Your task to perform on an android device: show emergency info Image 0: 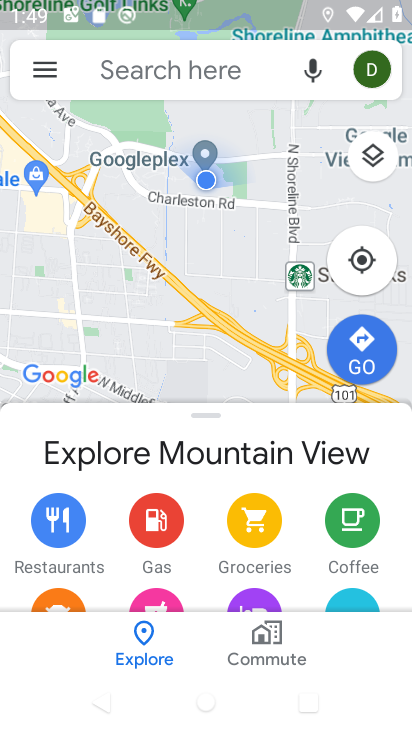
Step 0: press home button
Your task to perform on an android device: show emergency info Image 1: 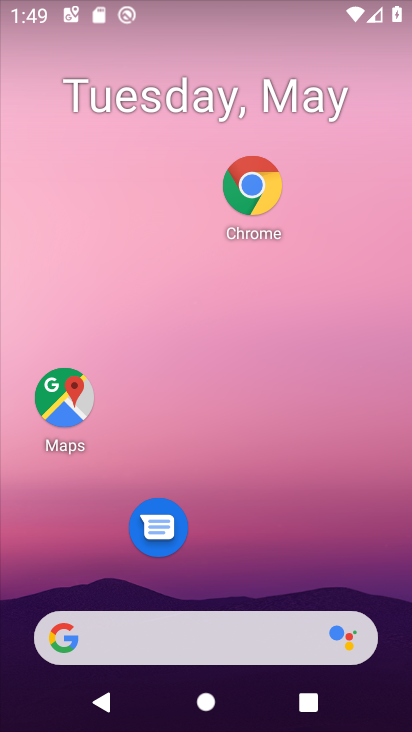
Step 1: drag from (238, 508) to (133, 5)
Your task to perform on an android device: show emergency info Image 2: 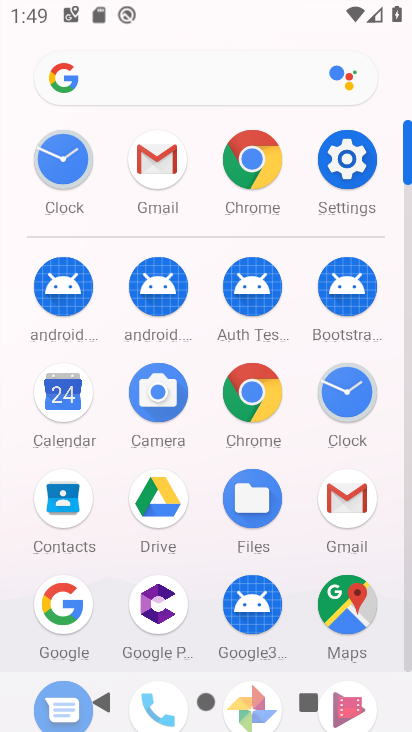
Step 2: click (350, 162)
Your task to perform on an android device: show emergency info Image 3: 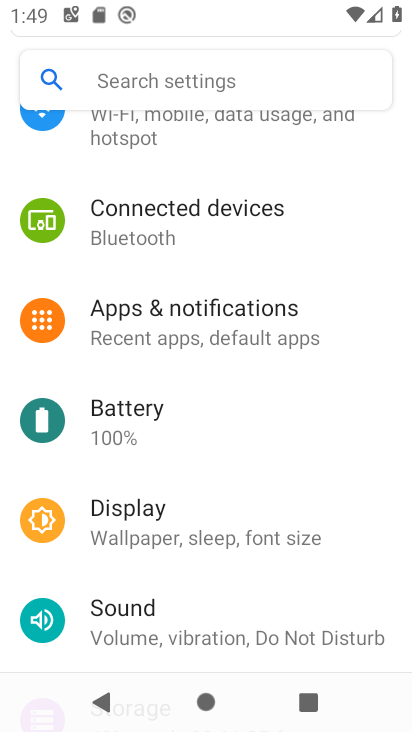
Step 3: drag from (238, 420) to (208, 103)
Your task to perform on an android device: show emergency info Image 4: 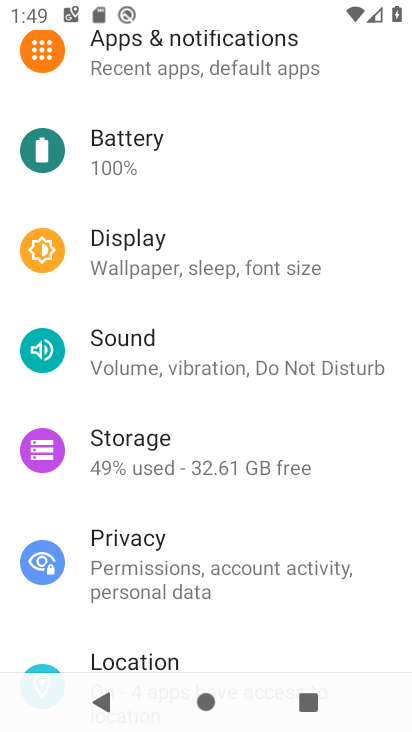
Step 4: drag from (245, 521) to (208, 188)
Your task to perform on an android device: show emergency info Image 5: 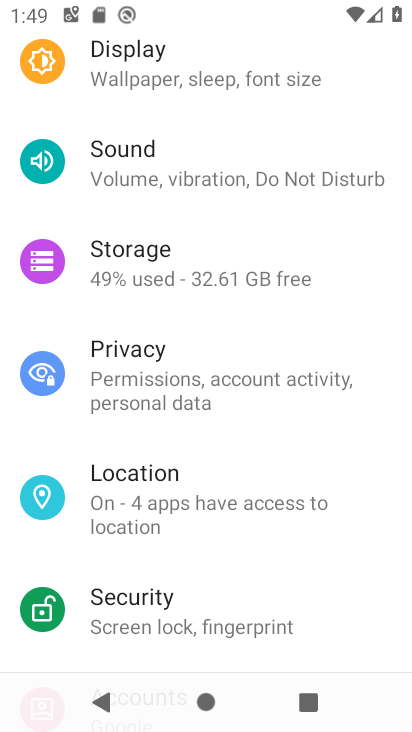
Step 5: drag from (230, 535) to (188, 182)
Your task to perform on an android device: show emergency info Image 6: 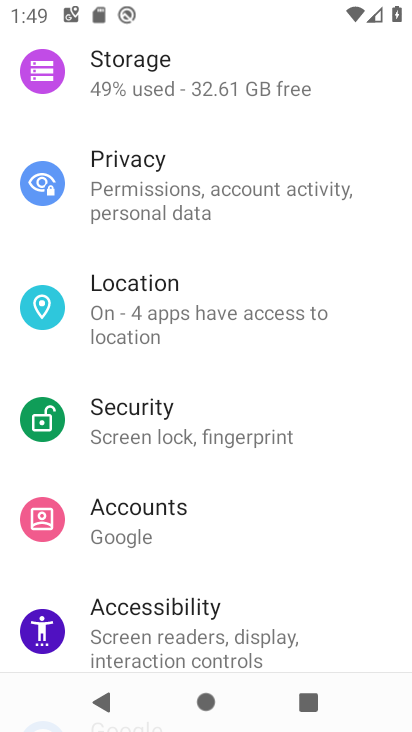
Step 6: drag from (225, 533) to (211, 292)
Your task to perform on an android device: show emergency info Image 7: 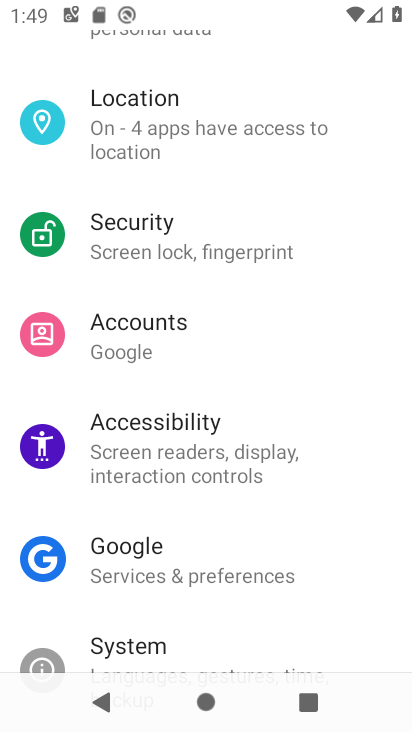
Step 7: drag from (219, 528) to (184, 205)
Your task to perform on an android device: show emergency info Image 8: 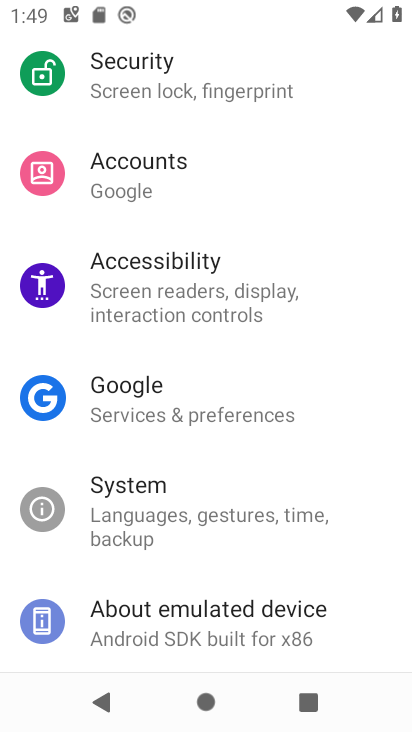
Step 8: drag from (192, 536) to (158, 229)
Your task to perform on an android device: show emergency info Image 9: 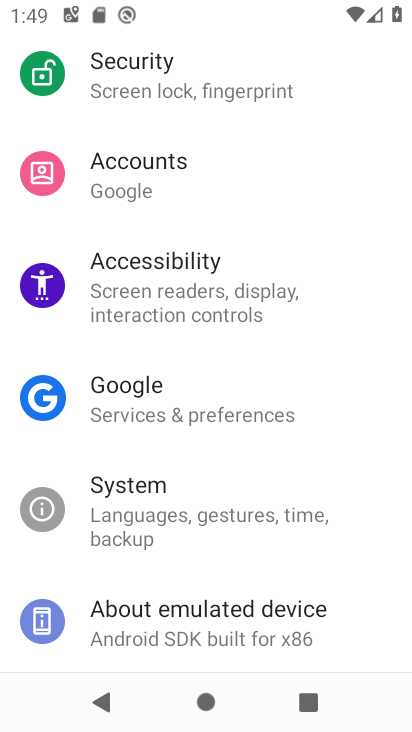
Step 9: click (188, 611)
Your task to perform on an android device: show emergency info Image 10: 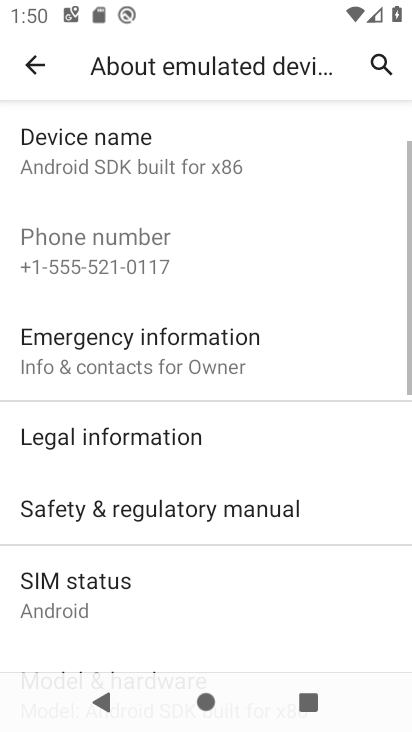
Step 10: click (187, 338)
Your task to perform on an android device: show emergency info Image 11: 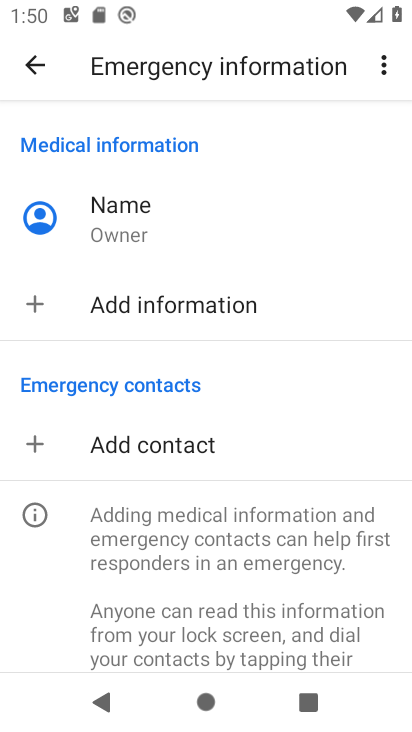
Step 11: task complete